Your task to perform on an android device: stop showing notifications on the lock screen Image 0: 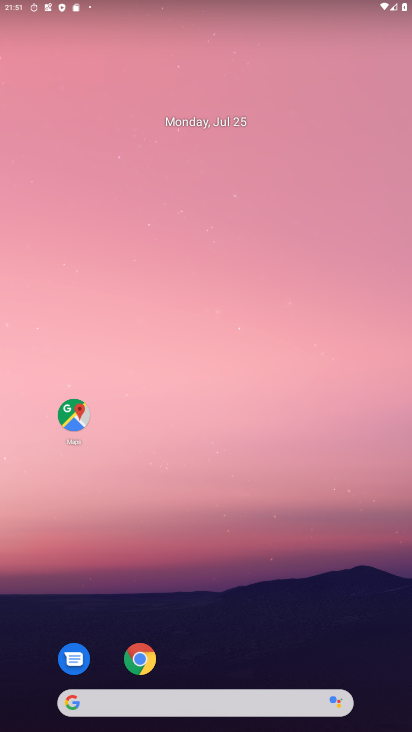
Step 0: drag from (185, 678) to (201, 192)
Your task to perform on an android device: stop showing notifications on the lock screen Image 1: 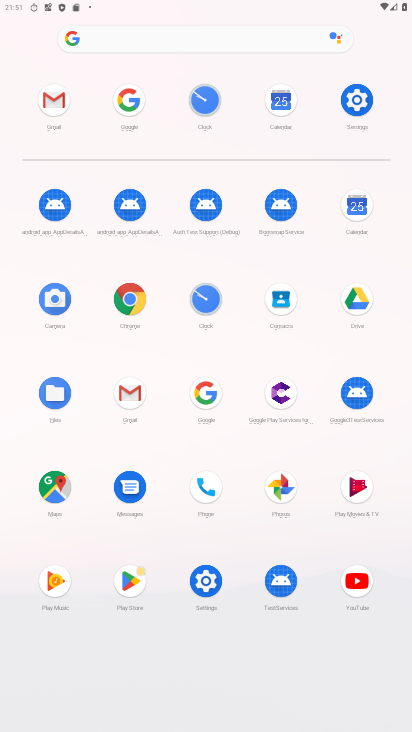
Step 1: click (355, 111)
Your task to perform on an android device: stop showing notifications on the lock screen Image 2: 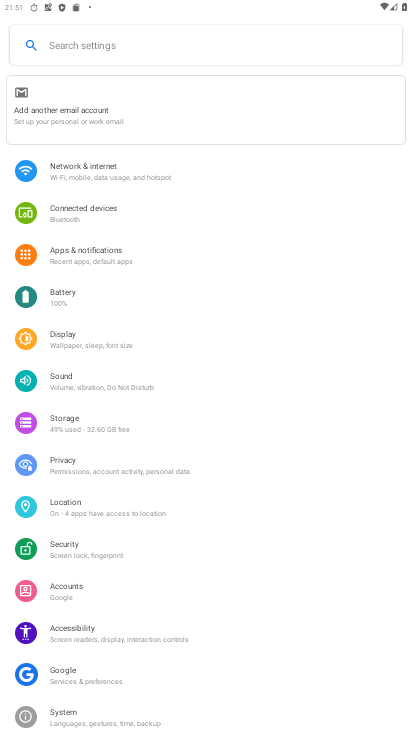
Step 2: click (127, 270)
Your task to perform on an android device: stop showing notifications on the lock screen Image 3: 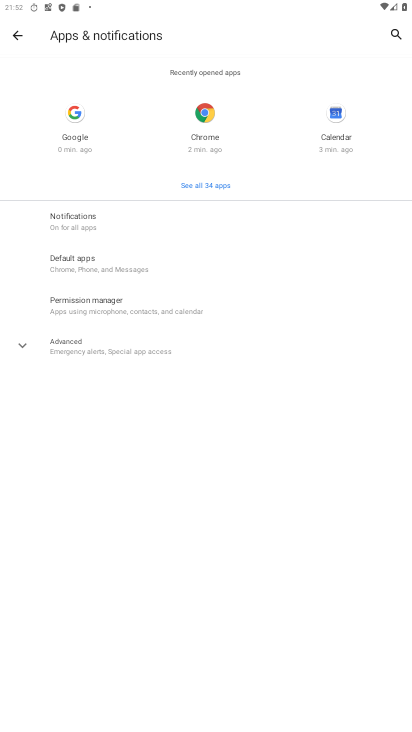
Step 3: click (81, 226)
Your task to perform on an android device: stop showing notifications on the lock screen Image 4: 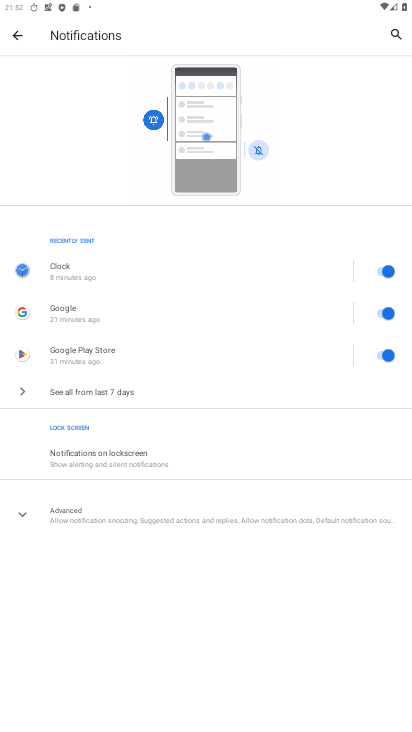
Step 4: click (160, 474)
Your task to perform on an android device: stop showing notifications on the lock screen Image 5: 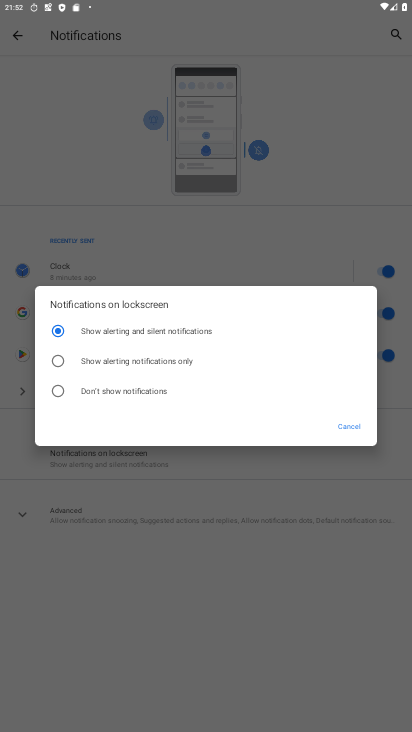
Step 5: click (102, 398)
Your task to perform on an android device: stop showing notifications on the lock screen Image 6: 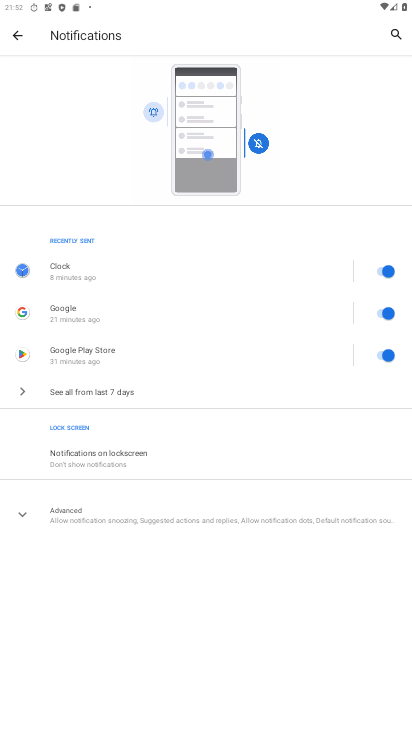
Step 6: task complete